Your task to perform on an android device: Open calendar and show me the fourth week of next month Image 0: 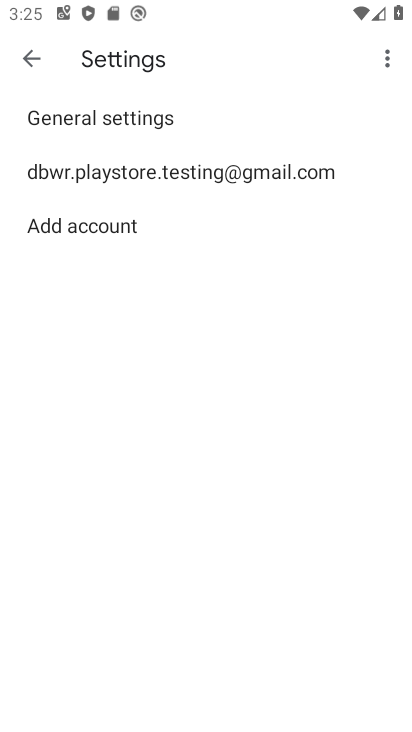
Step 0: press home button
Your task to perform on an android device: Open calendar and show me the fourth week of next month Image 1: 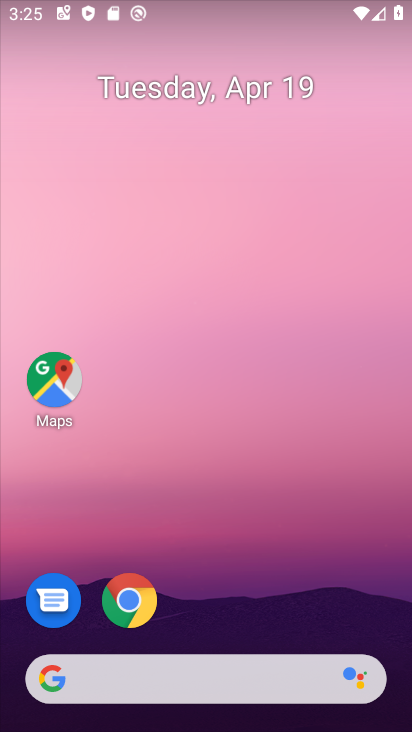
Step 1: click (139, 82)
Your task to perform on an android device: Open calendar and show me the fourth week of next month Image 2: 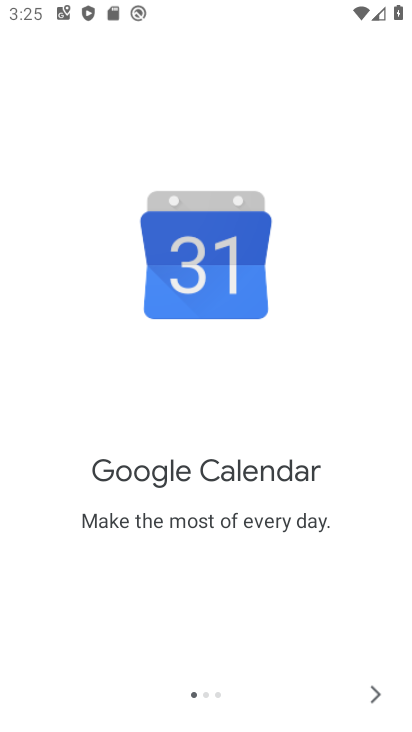
Step 2: click (373, 696)
Your task to perform on an android device: Open calendar and show me the fourth week of next month Image 3: 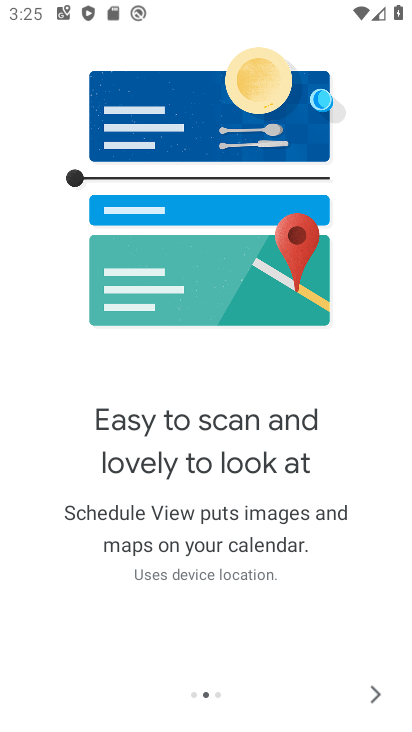
Step 3: click (374, 697)
Your task to perform on an android device: Open calendar and show me the fourth week of next month Image 4: 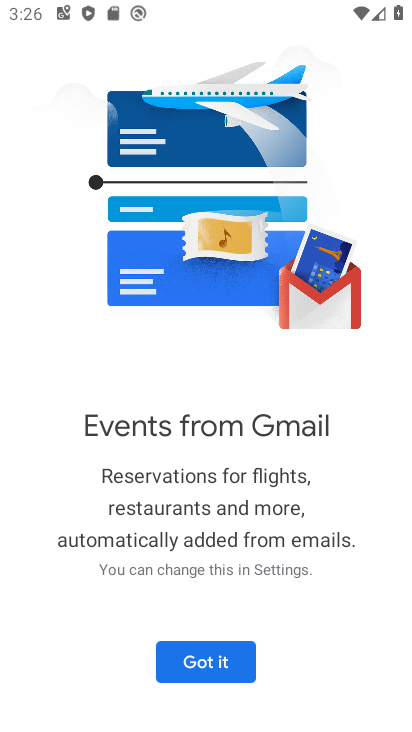
Step 4: click (244, 670)
Your task to perform on an android device: Open calendar and show me the fourth week of next month Image 5: 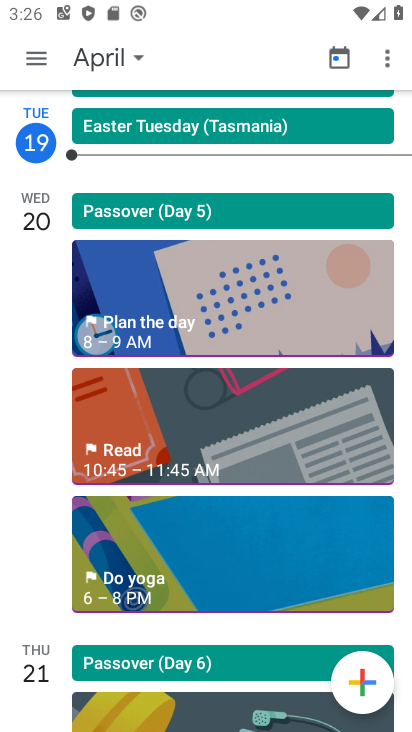
Step 5: click (109, 49)
Your task to perform on an android device: Open calendar and show me the fourth week of next month Image 6: 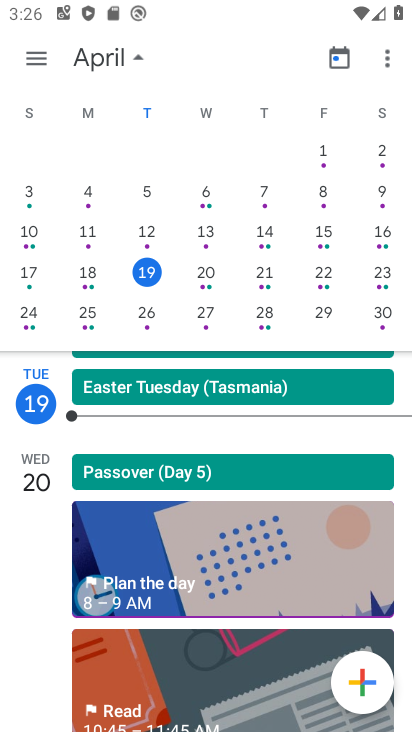
Step 6: drag from (313, 257) to (0, 505)
Your task to perform on an android device: Open calendar and show me the fourth week of next month Image 7: 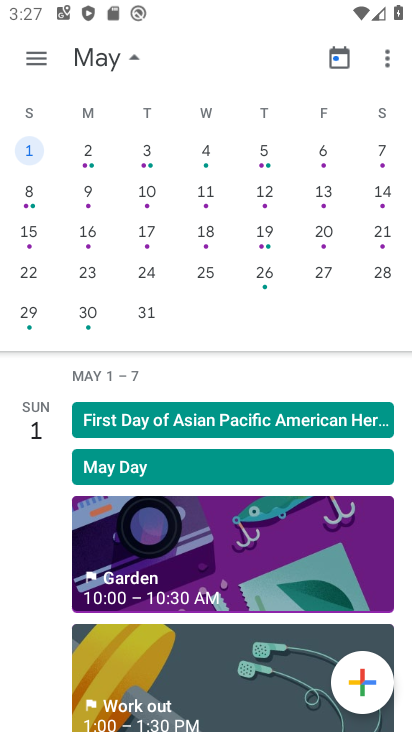
Step 7: click (325, 273)
Your task to perform on an android device: Open calendar and show me the fourth week of next month Image 8: 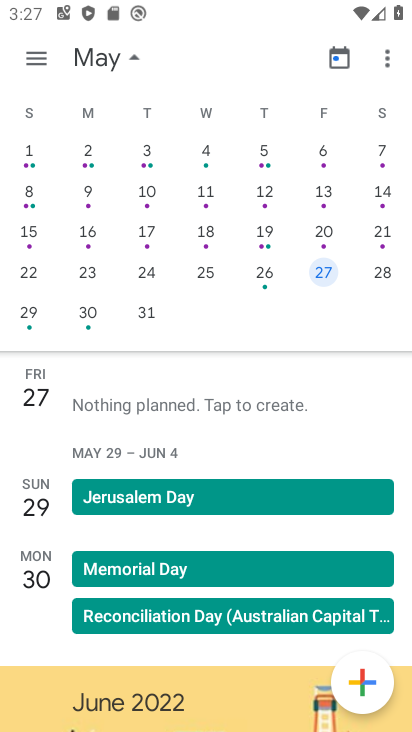
Step 8: task complete